Your task to perform on an android device: Search for pizza restaurants on Maps Image 0: 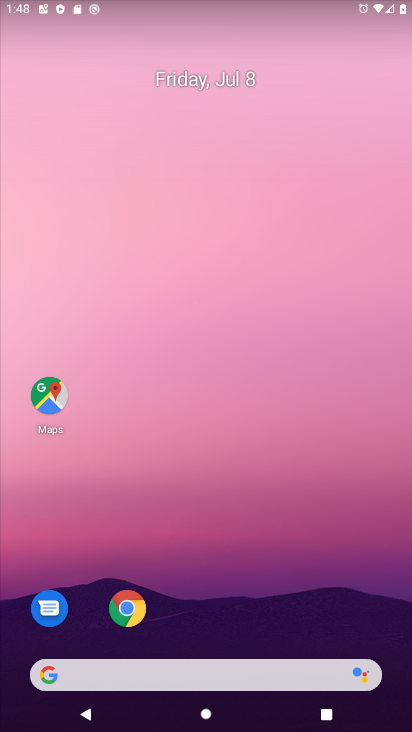
Step 0: click (57, 404)
Your task to perform on an android device: Search for pizza restaurants on Maps Image 1: 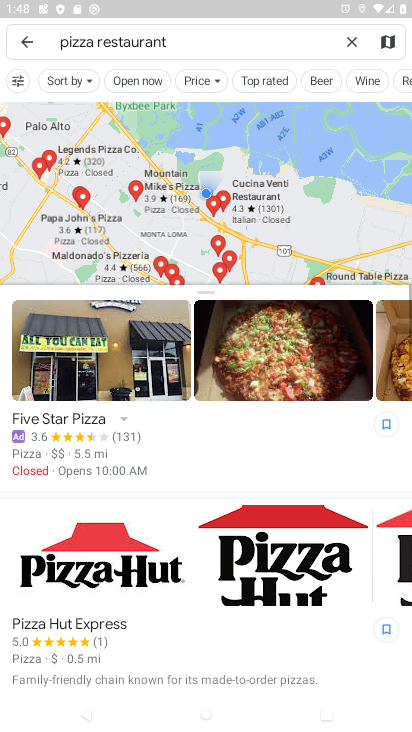
Step 1: task complete